Your task to perform on an android device: Open Chrome and go to settings Image 0: 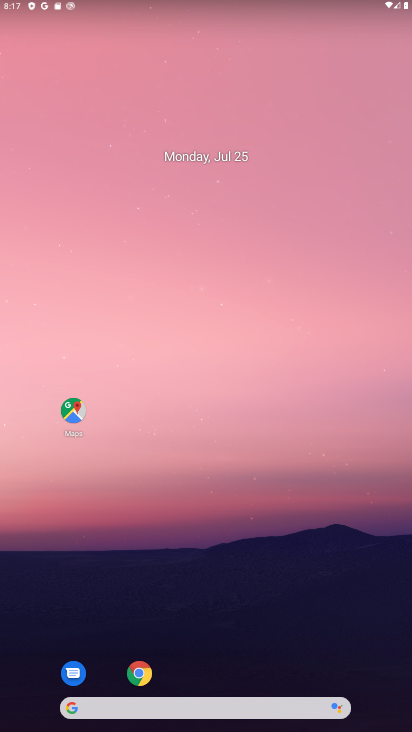
Step 0: click (142, 675)
Your task to perform on an android device: Open Chrome and go to settings Image 1: 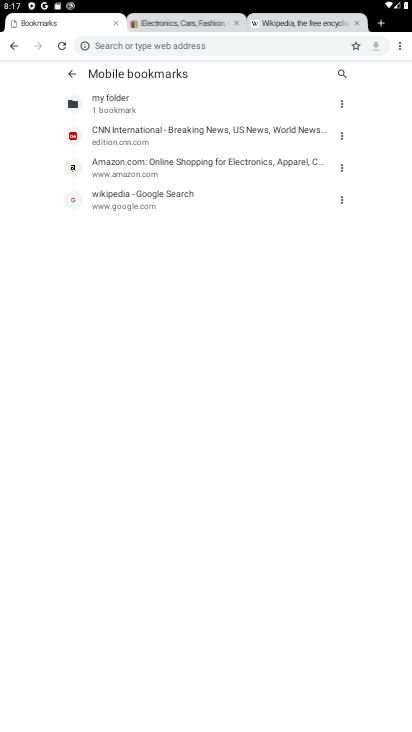
Step 1: click (396, 49)
Your task to perform on an android device: Open Chrome and go to settings Image 2: 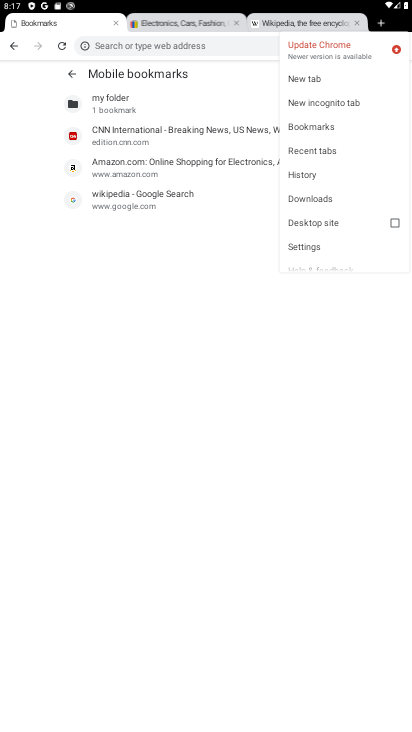
Step 2: click (317, 244)
Your task to perform on an android device: Open Chrome and go to settings Image 3: 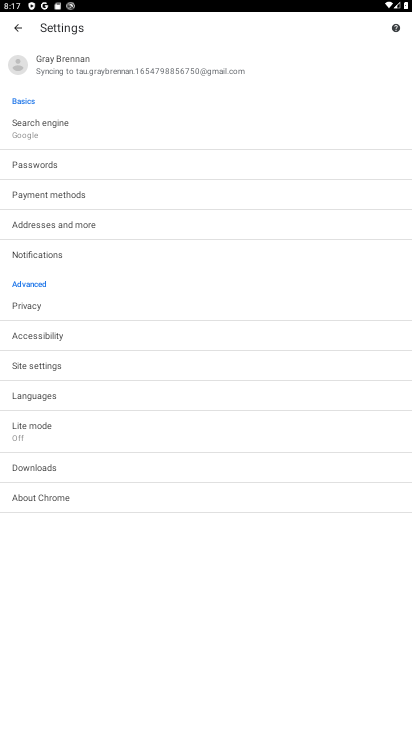
Step 3: task complete